Your task to perform on an android device: What's the weather going to be tomorrow? Image 0: 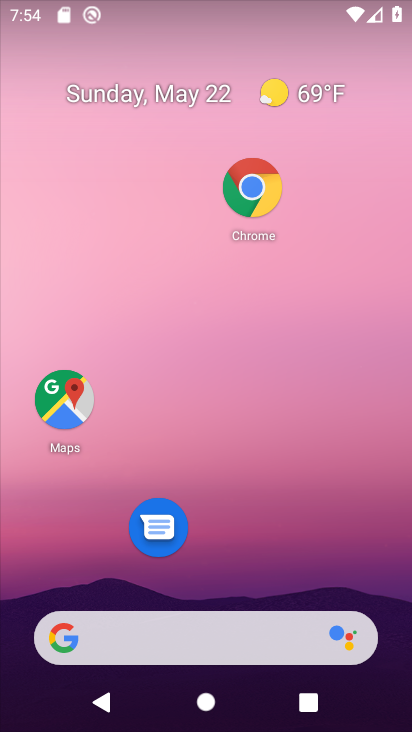
Step 0: press home button
Your task to perform on an android device: What's the weather going to be tomorrow? Image 1: 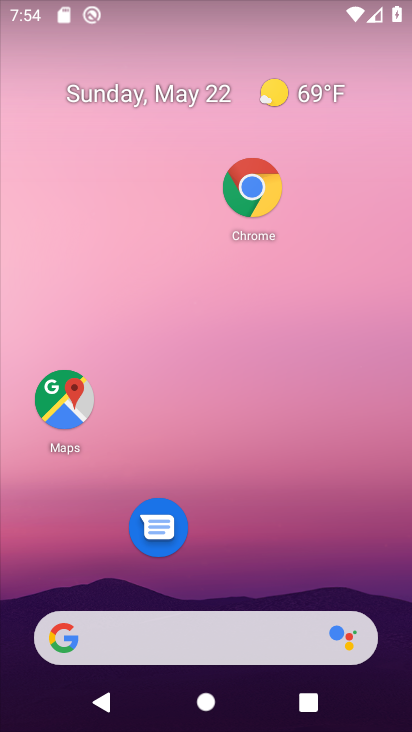
Step 1: click (305, 87)
Your task to perform on an android device: What's the weather going to be tomorrow? Image 2: 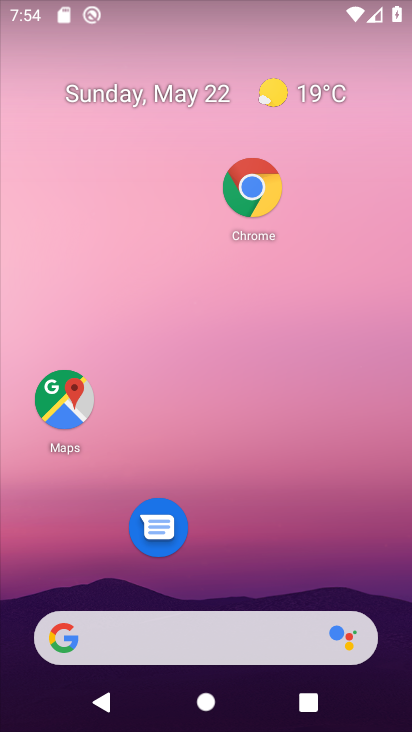
Step 2: click (318, 89)
Your task to perform on an android device: What's the weather going to be tomorrow? Image 3: 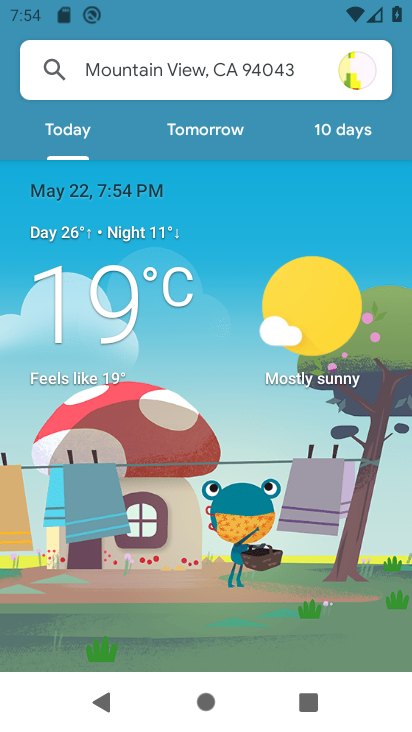
Step 3: click (205, 137)
Your task to perform on an android device: What's the weather going to be tomorrow? Image 4: 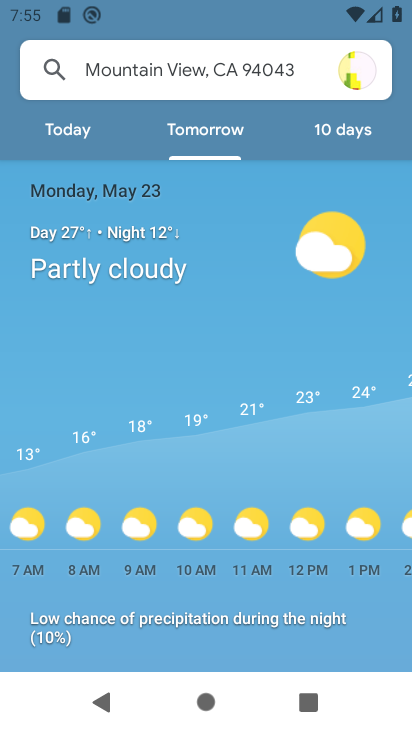
Step 4: task complete